Your task to perform on an android device: Open the calendar and show me this week's events? Image 0: 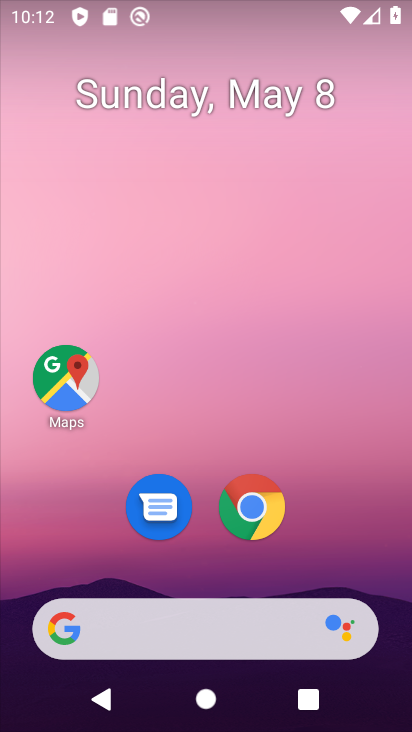
Step 0: drag from (315, 558) to (233, 94)
Your task to perform on an android device: Open the calendar and show me this week's events? Image 1: 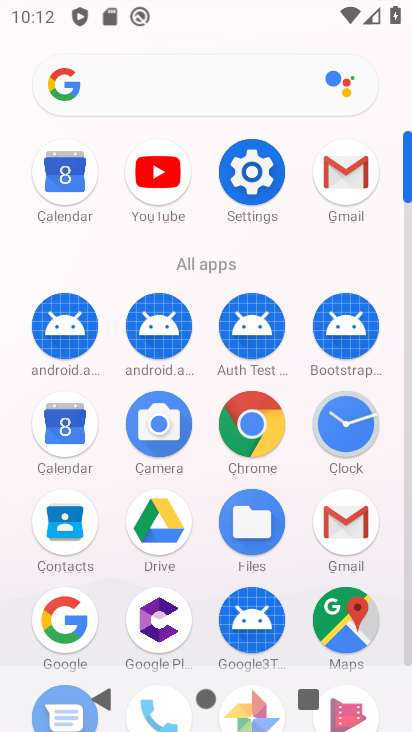
Step 1: click (48, 423)
Your task to perform on an android device: Open the calendar and show me this week's events? Image 2: 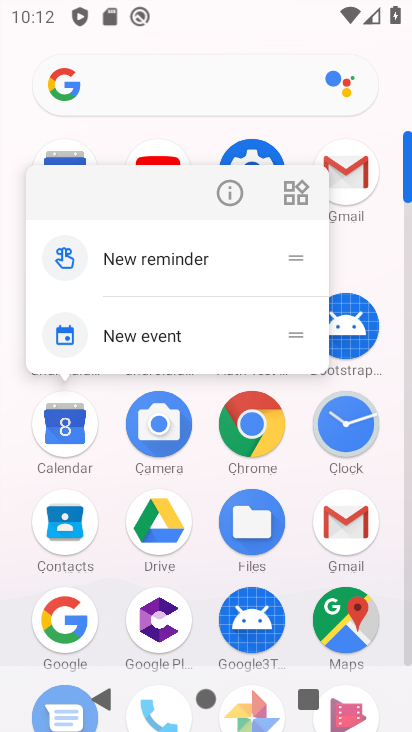
Step 2: click (48, 423)
Your task to perform on an android device: Open the calendar and show me this week's events? Image 3: 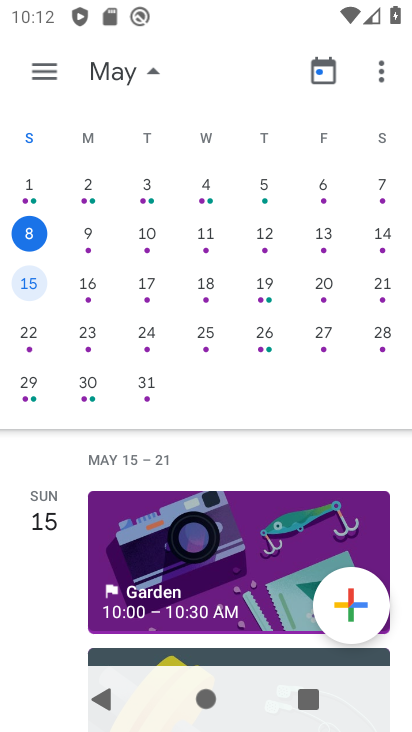
Step 3: click (89, 236)
Your task to perform on an android device: Open the calendar and show me this week's events? Image 4: 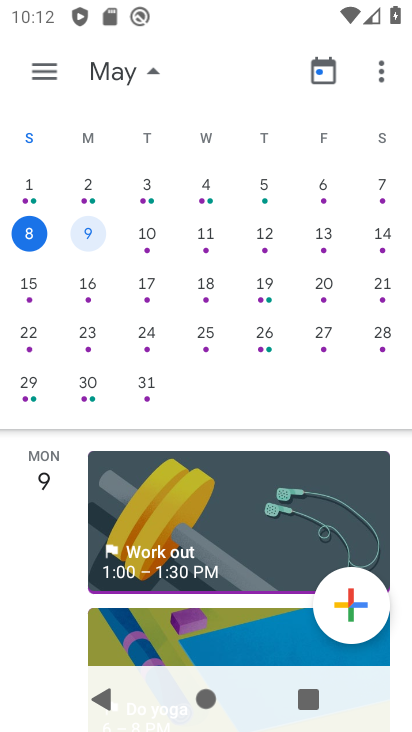
Step 4: click (144, 245)
Your task to perform on an android device: Open the calendar and show me this week's events? Image 5: 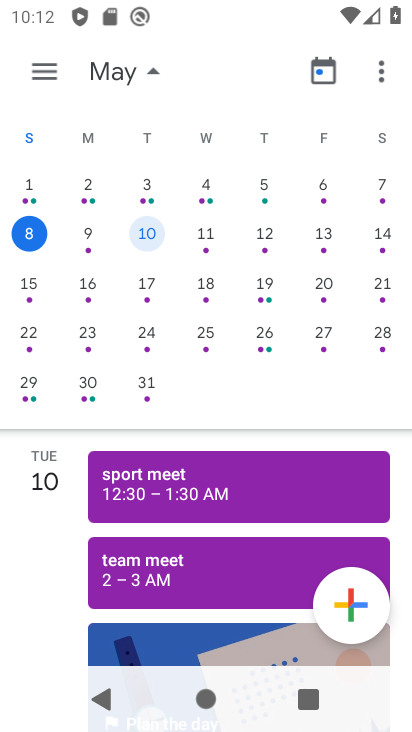
Step 5: click (206, 242)
Your task to perform on an android device: Open the calendar and show me this week's events? Image 6: 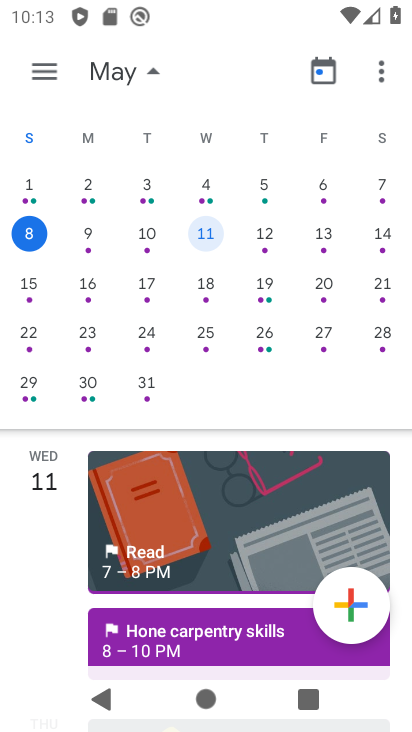
Step 6: click (259, 236)
Your task to perform on an android device: Open the calendar and show me this week's events? Image 7: 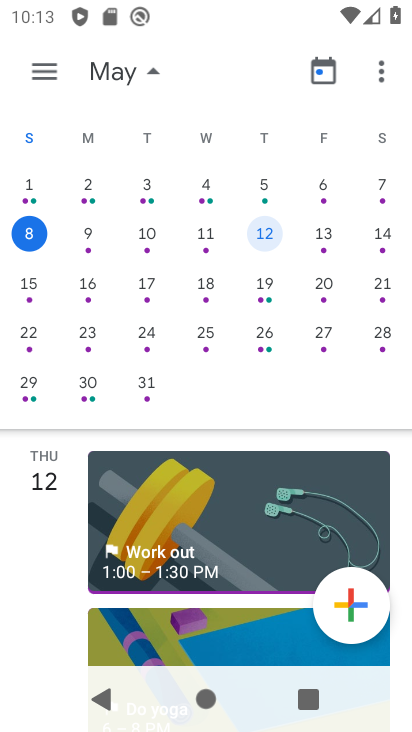
Step 7: click (319, 241)
Your task to perform on an android device: Open the calendar and show me this week's events? Image 8: 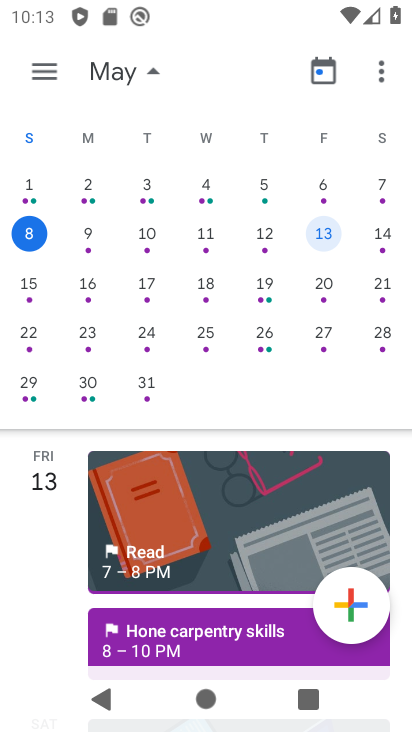
Step 8: click (381, 235)
Your task to perform on an android device: Open the calendar and show me this week's events? Image 9: 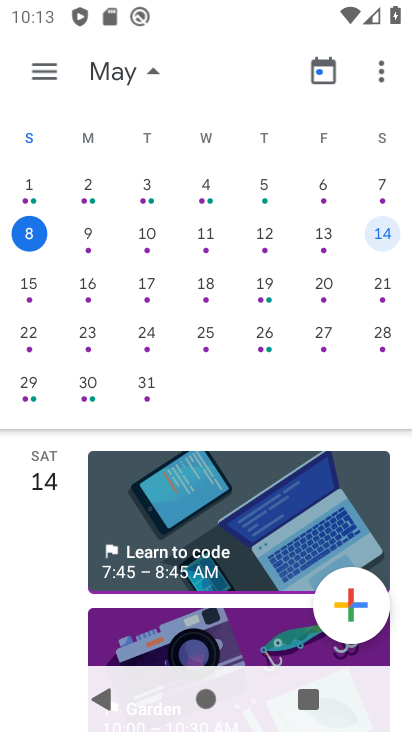
Step 9: task complete